Your task to perform on an android device: Open the calendar and show me this week's events? Image 0: 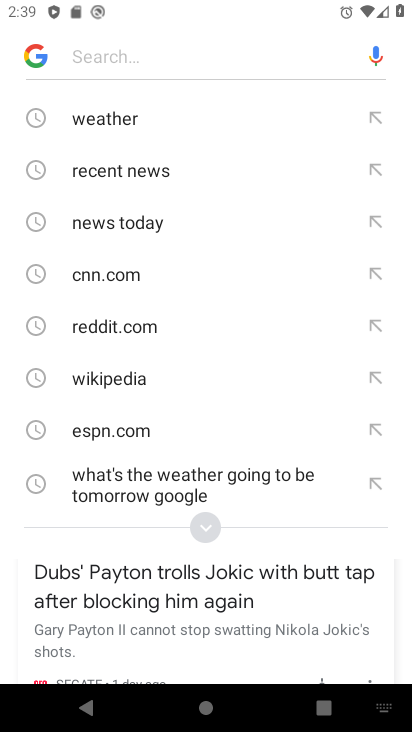
Step 0: press home button
Your task to perform on an android device: Open the calendar and show me this week's events? Image 1: 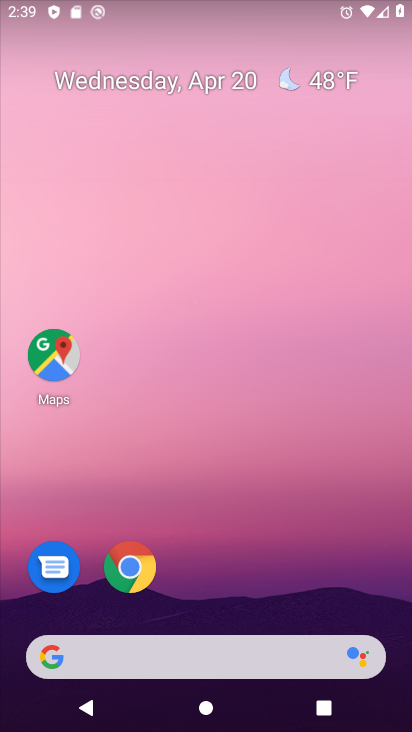
Step 1: drag from (188, 593) to (192, 208)
Your task to perform on an android device: Open the calendar and show me this week's events? Image 2: 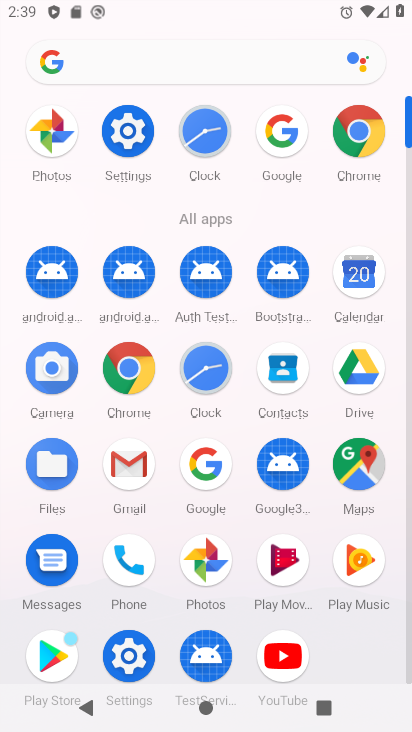
Step 2: click (350, 290)
Your task to perform on an android device: Open the calendar and show me this week's events? Image 3: 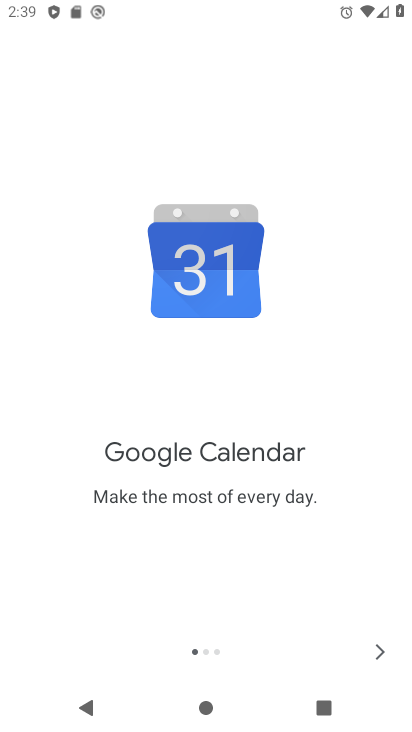
Step 3: click (382, 645)
Your task to perform on an android device: Open the calendar and show me this week's events? Image 4: 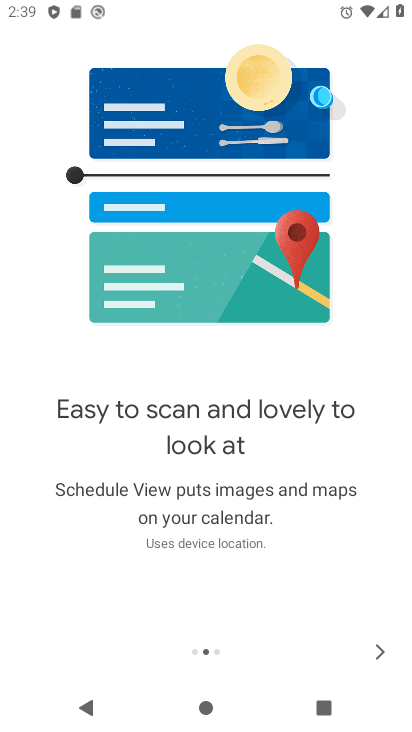
Step 4: click (382, 645)
Your task to perform on an android device: Open the calendar and show me this week's events? Image 5: 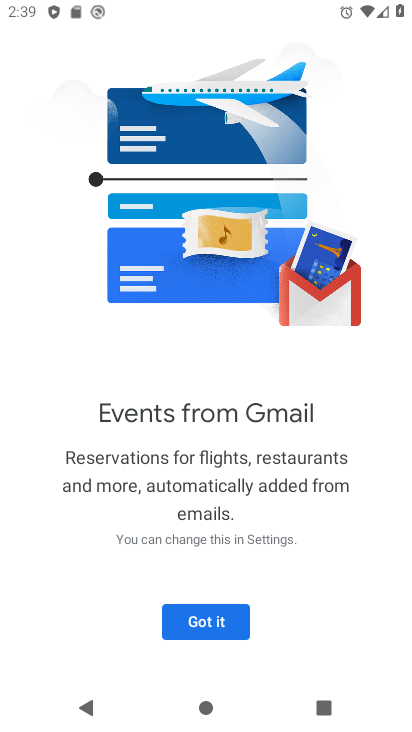
Step 5: click (229, 618)
Your task to perform on an android device: Open the calendar and show me this week's events? Image 6: 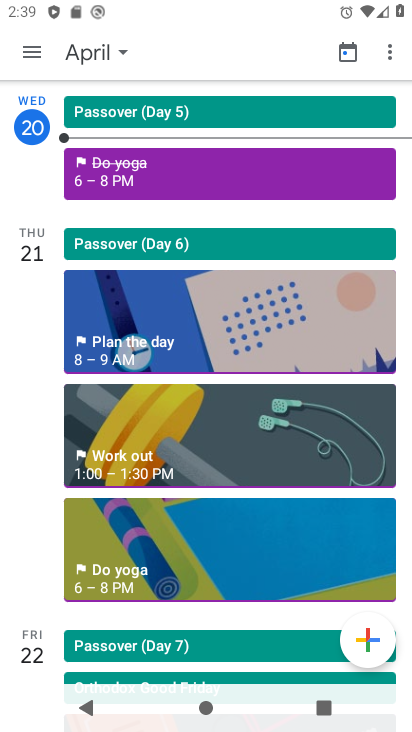
Step 6: click (118, 54)
Your task to perform on an android device: Open the calendar and show me this week's events? Image 7: 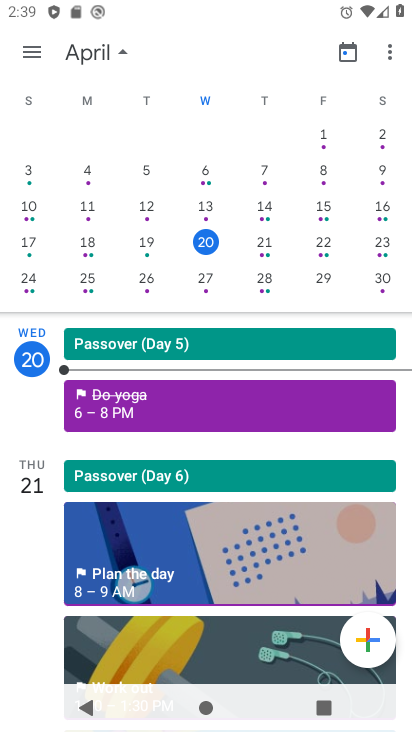
Step 7: click (379, 247)
Your task to perform on an android device: Open the calendar and show me this week's events? Image 8: 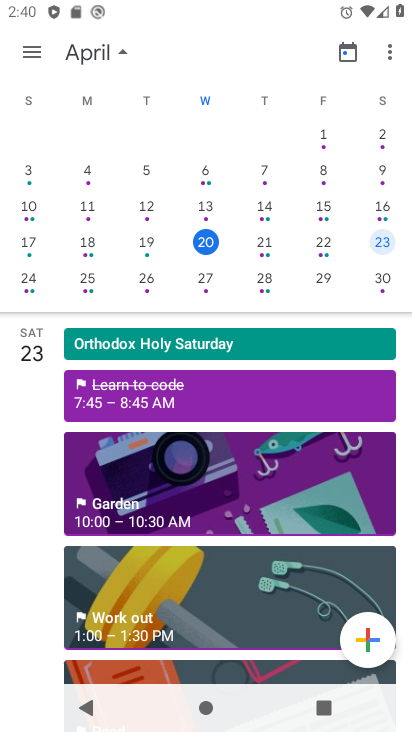
Step 8: click (328, 241)
Your task to perform on an android device: Open the calendar and show me this week's events? Image 9: 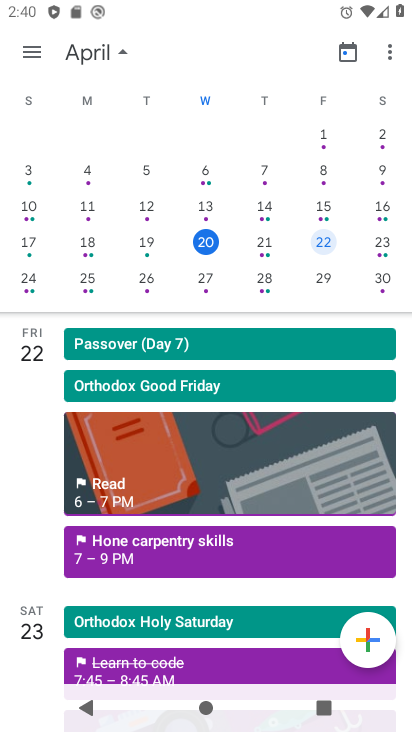
Step 9: click (234, 532)
Your task to perform on an android device: Open the calendar and show me this week's events? Image 10: 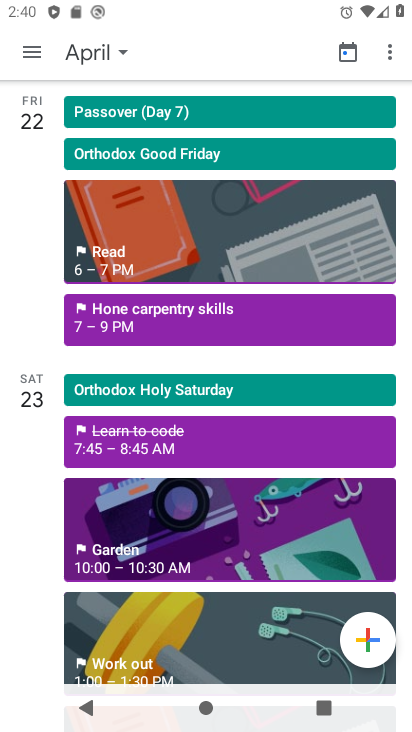
Step 10: task complete